Your task to perform on an android device: Go to Maps Image 0: 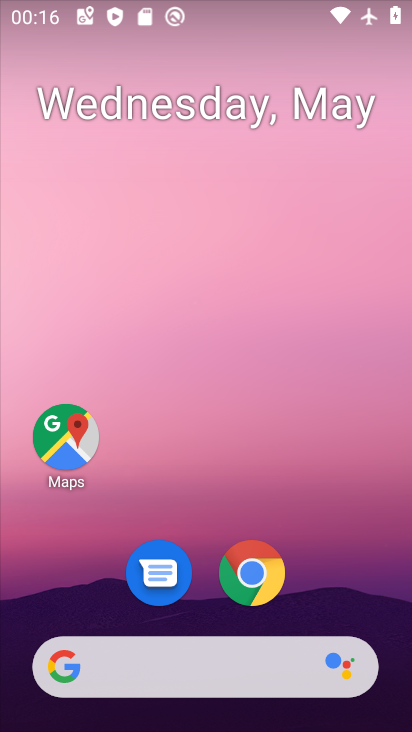
Step 0: drag from (335, 539) to (345, 244)
Your task to perform on an android device: Go to Maps Image 1: 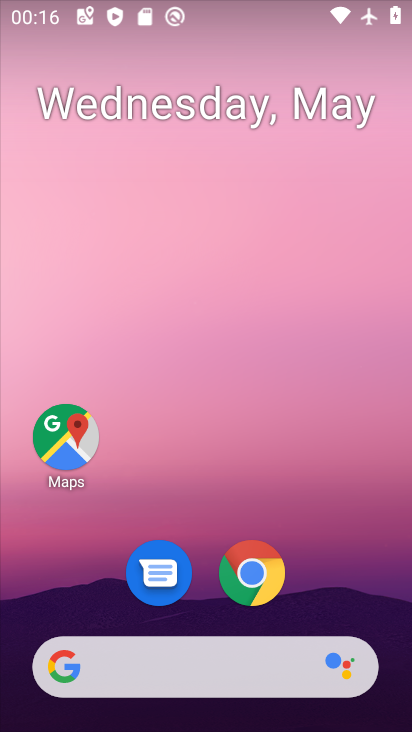
Step 1: click (62, 427)
Your task to perform on an android device: Go to Maps Image 2: 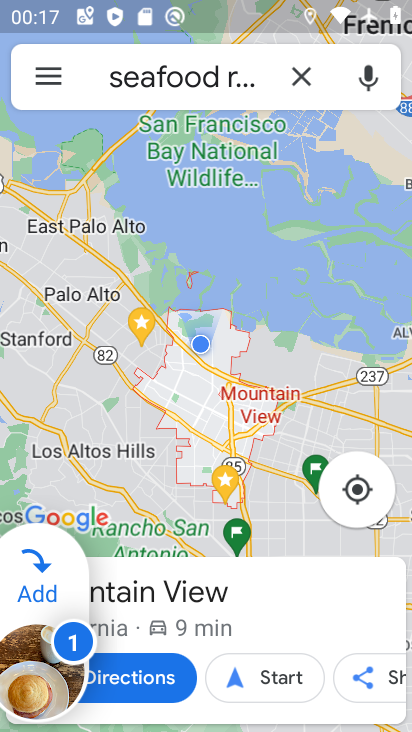
Step 2: click (62, 427)
Your task to perform on an android device: Go to Maps Image 3: 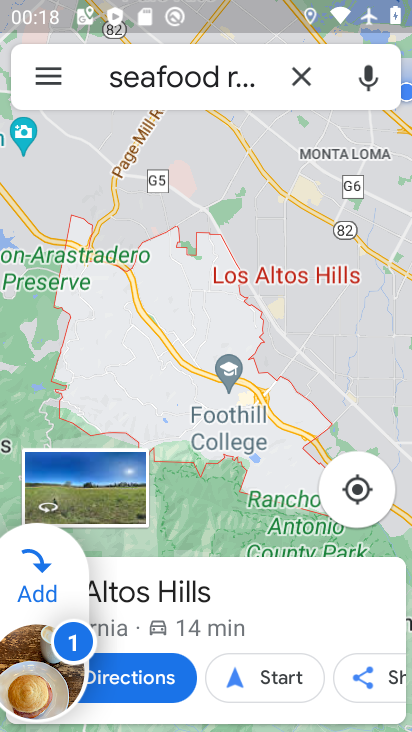
Step 3: task complete